Your task to perform on an android device: delete browsing data in the chrome app Image 0: 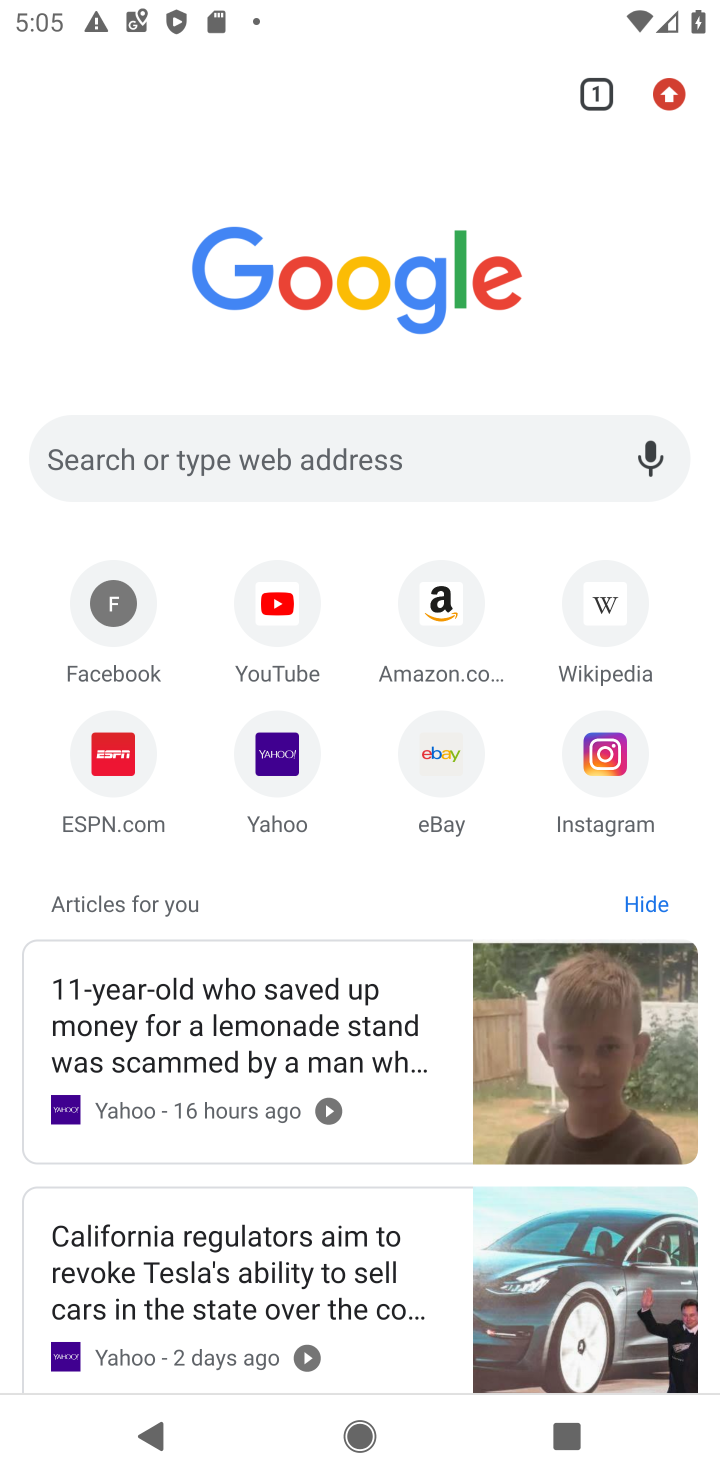
Step 0: press home button
Your task to perform on an android device: delete browsing data in the chrome app Image 1: 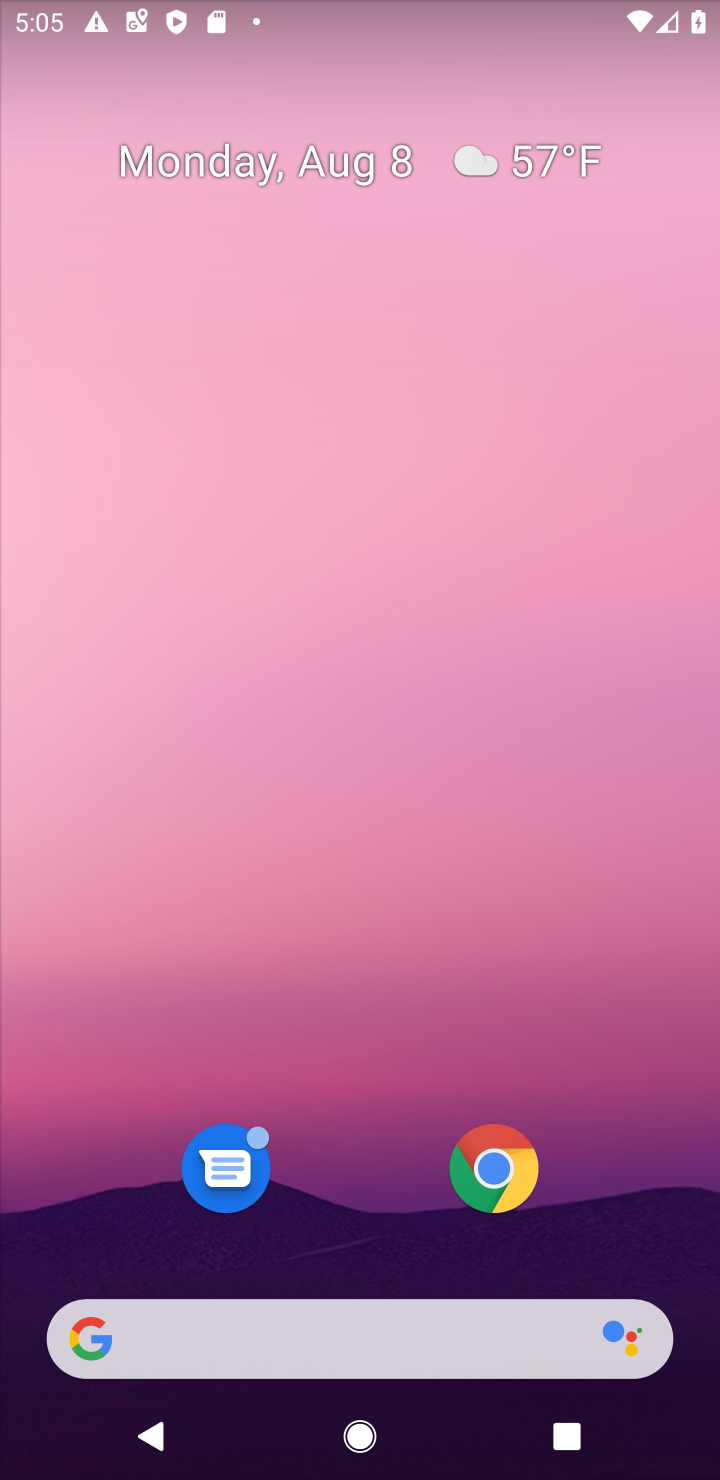
Step 1: click (496, 1154)
Your task to perform on an android device: delete browsing data in the chrome app Image 2: 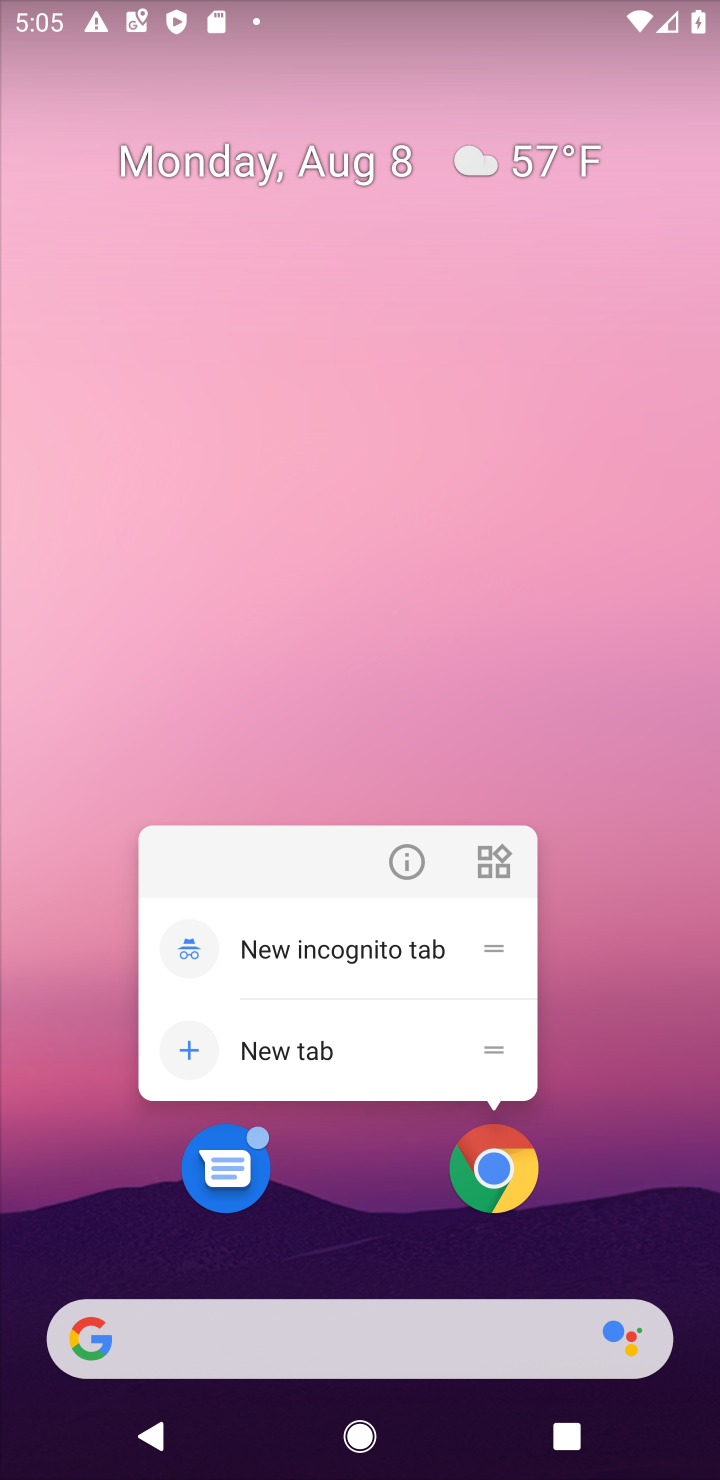
Step 2: click (496, 1154)
Your task to perform on an android device: delete browsing data in the chrome app Image 3: 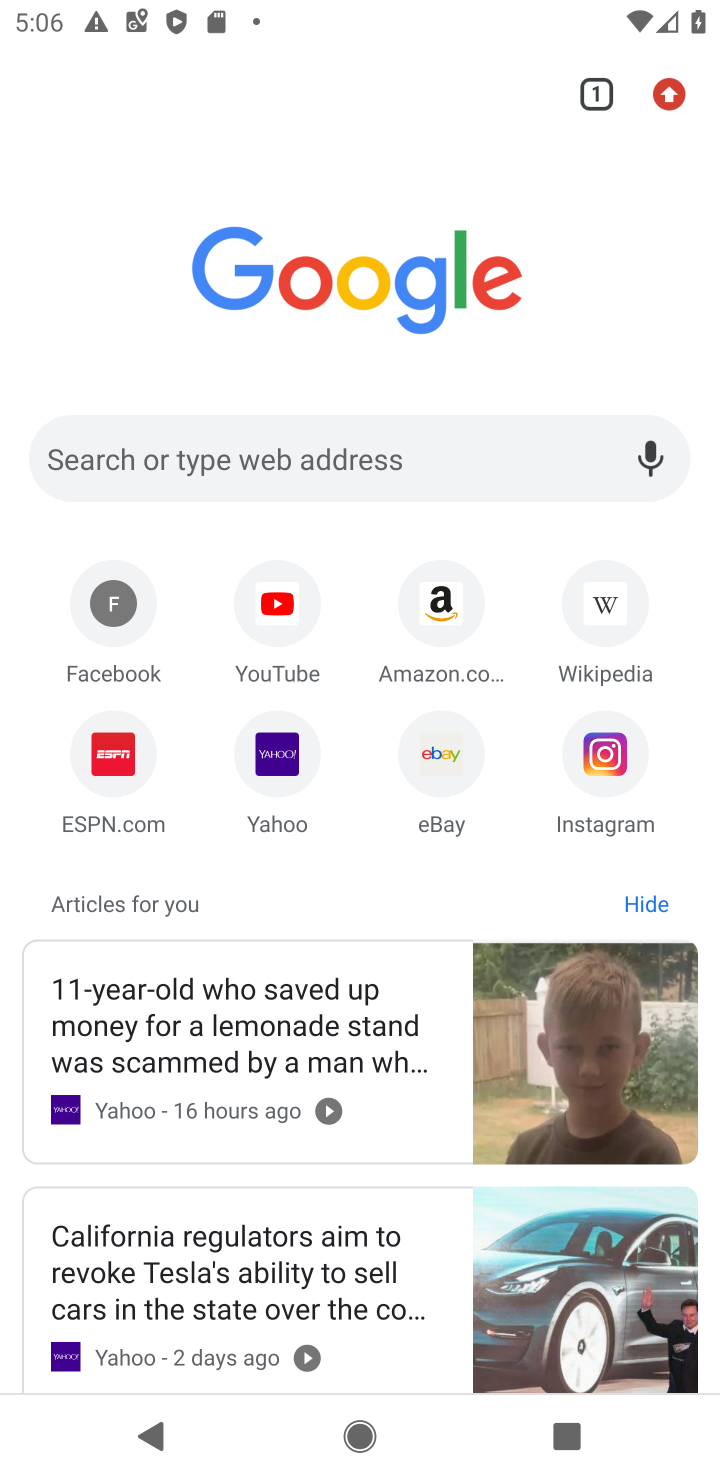
Step 3: click (680, 88)
Your task to perform on an android device: delete browsing data in the chrome app Image 4: 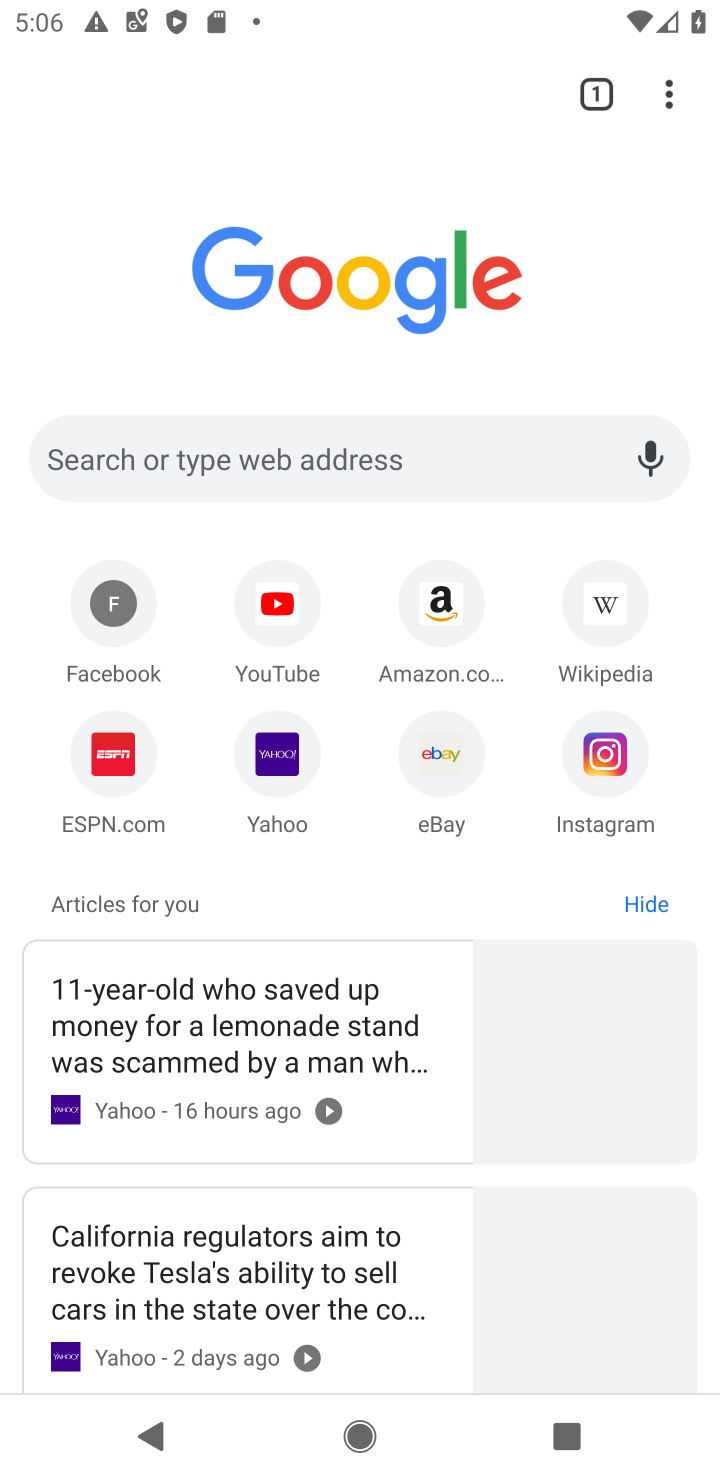
Step 4: drag from (680, 88) to (437, 653)
Your task to perform on an android device: delete browsing data in the chrome app Image 5: 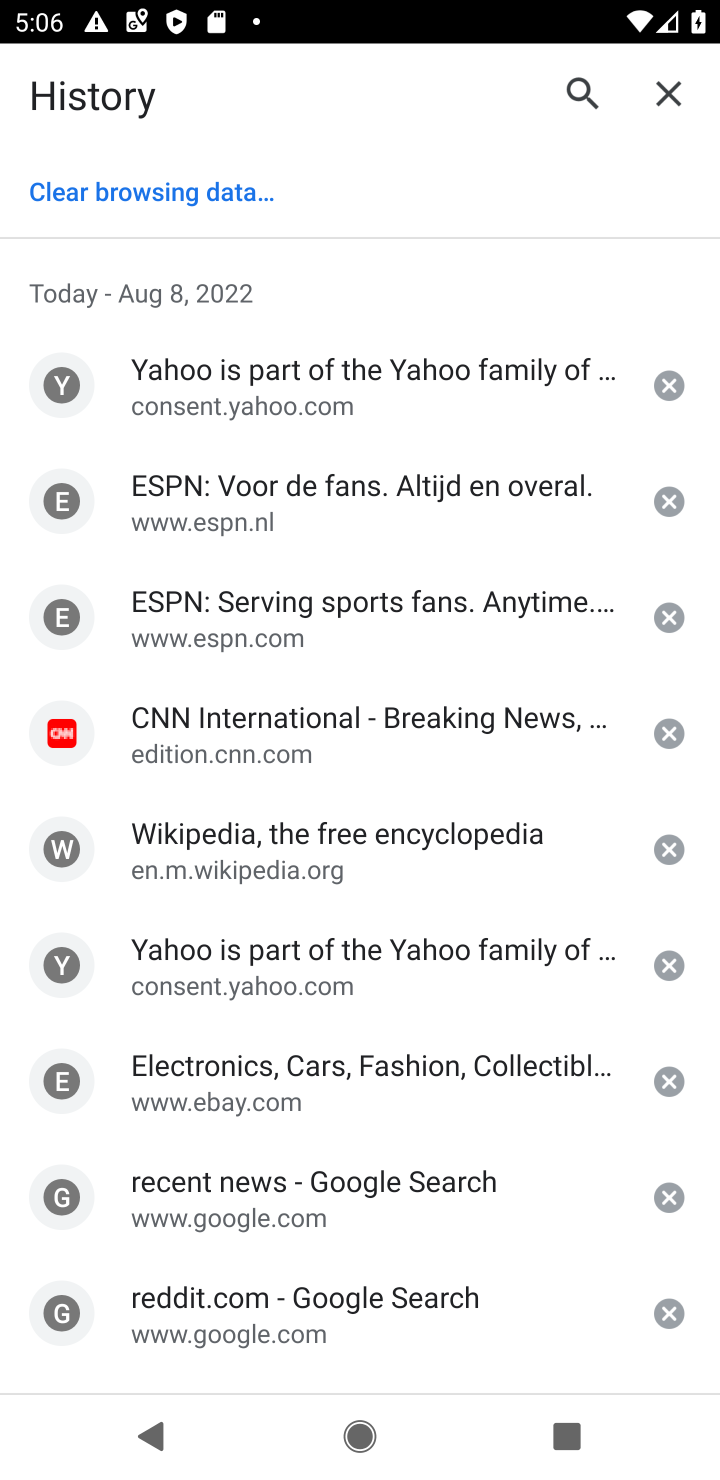
Step 5: click (130, 190)
Your task to perform on an android device: delete browsing data in the chrome app Image 6: 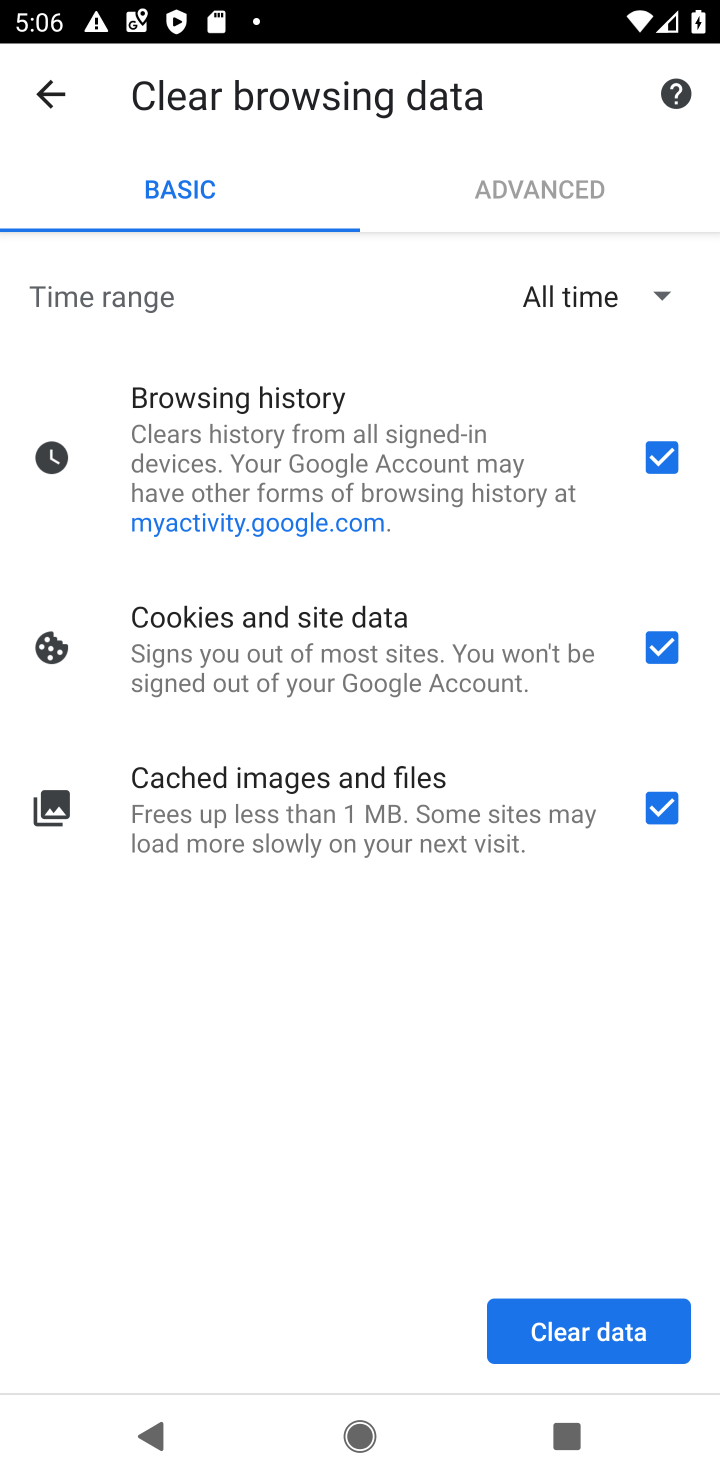
Step 6: click (606, 1344)
Your task to perform on an android device: delete browsing data in the chrome app Image 7: 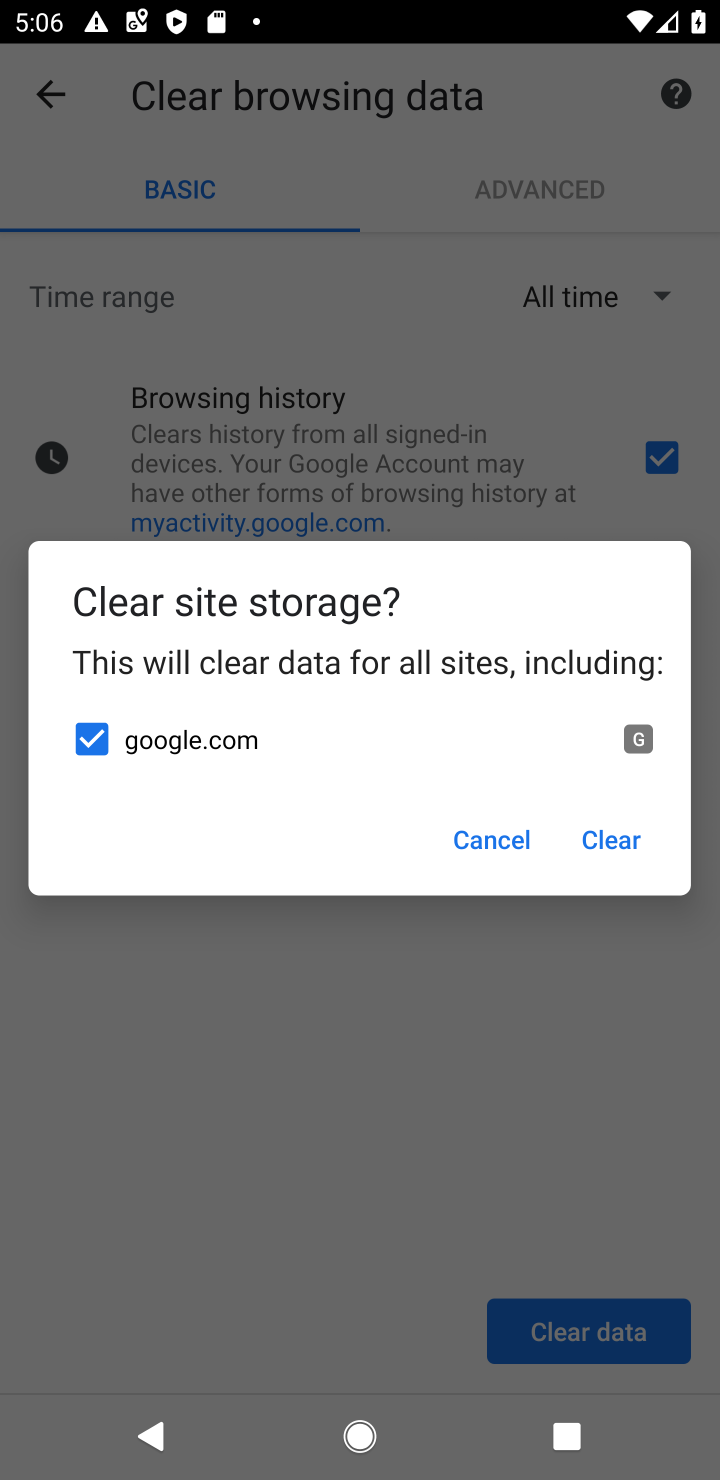
Step 7: click (603, 826)
Your task to perform on an android device: delete browsing data in the chrome app Image 8: 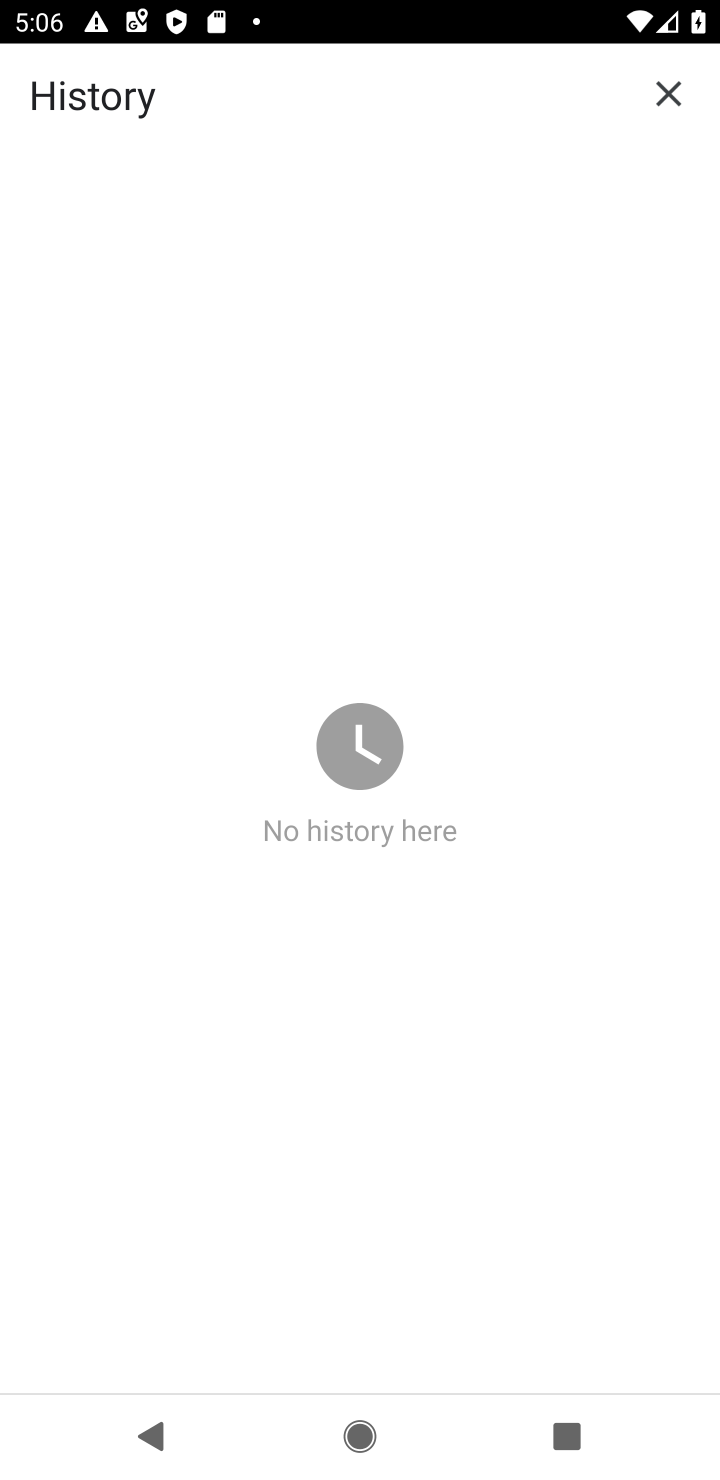
Step 8: task complete